Your task to perform on an android device: turn on improve location accuracy Image 0: 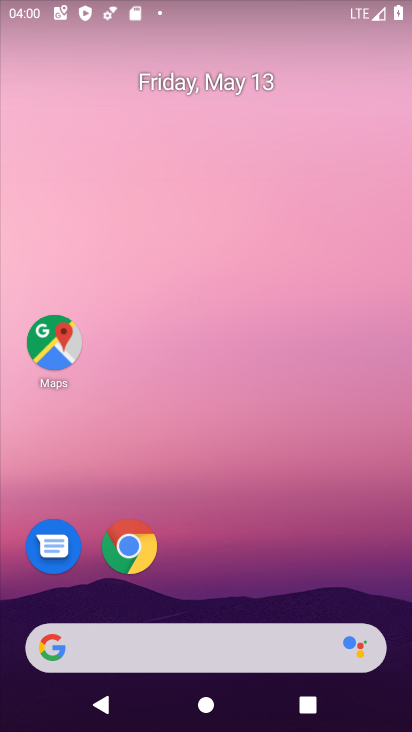
Step 0: drag from (162, 599) to (309, 54)
Your task to perform on an android device: turn on improve location accuracy Image 1: 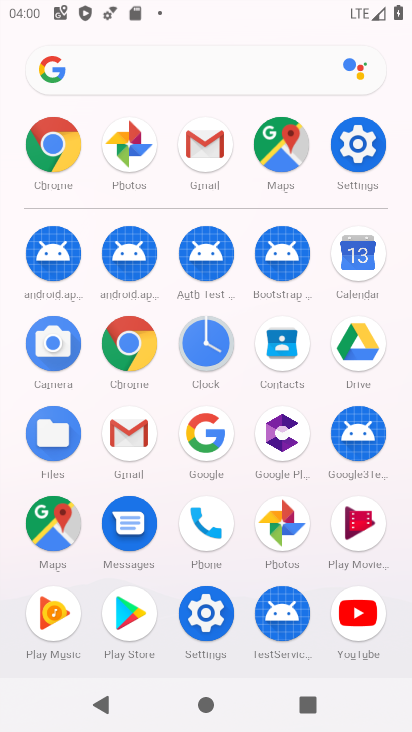
Step 1: click (349, 150)
Your task to perform on an android device: turn on improve location accuracy Image 2: 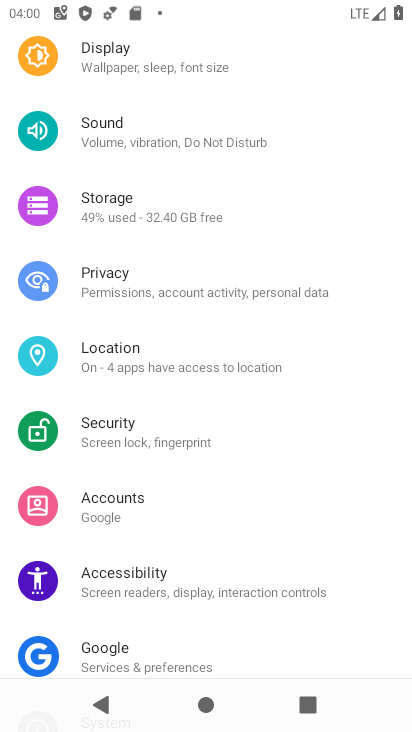
Step 2: click (155, 346)
Your task to perform on an android device: turn on improve location accuracy Image 3: 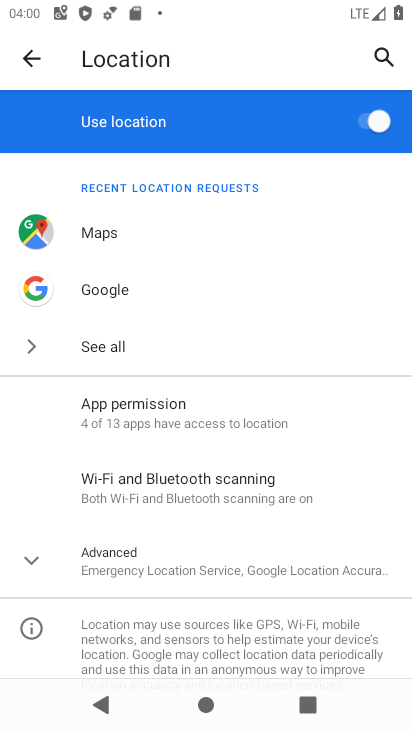
Step 3: click (250, 540)
Your task to perform on an android device: turn on improve location accuracy Image 4: 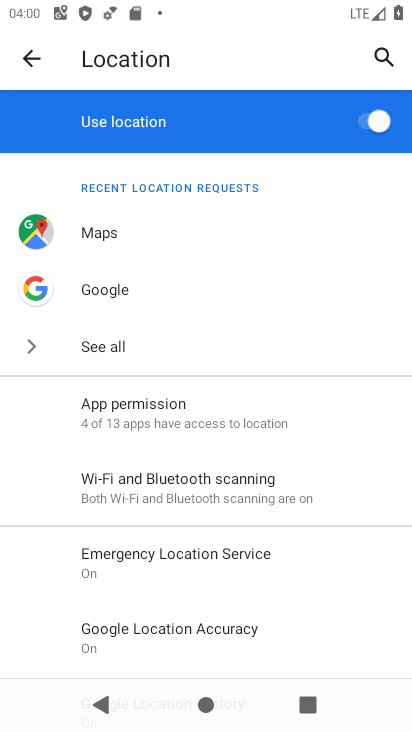
Step 4: drag from (219, 619) to (319, 214)
Your task to perform on an android device: turn on improve location accuracy Image 5: 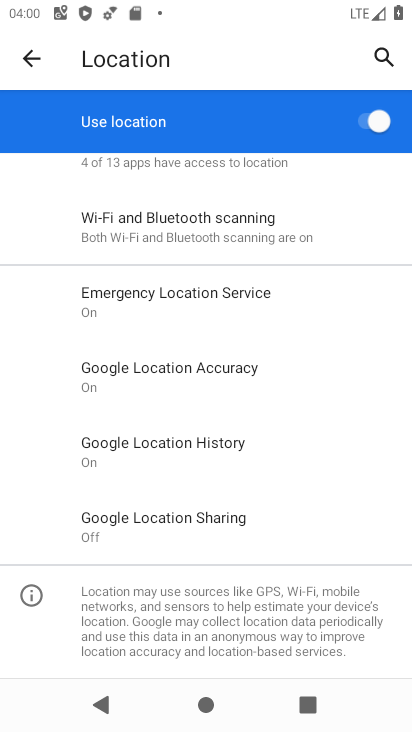
Step 5: click (194, 370)
Your task to perform on an android device: turn on improve location accuracy Image 6: 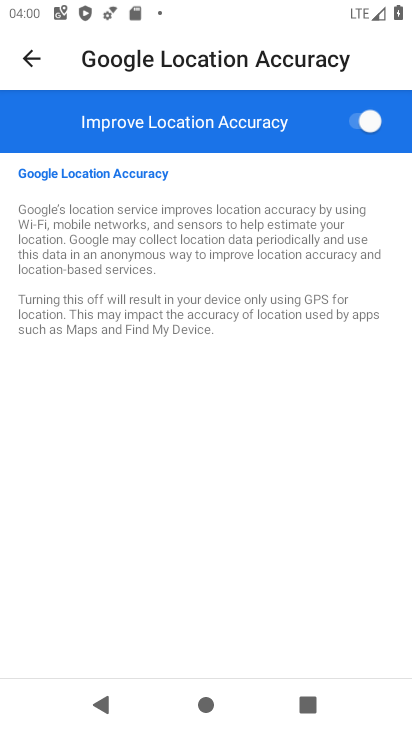
Step 6: task complete